Your task to perform on an android device: turn off translation in the chrome app Image 0: 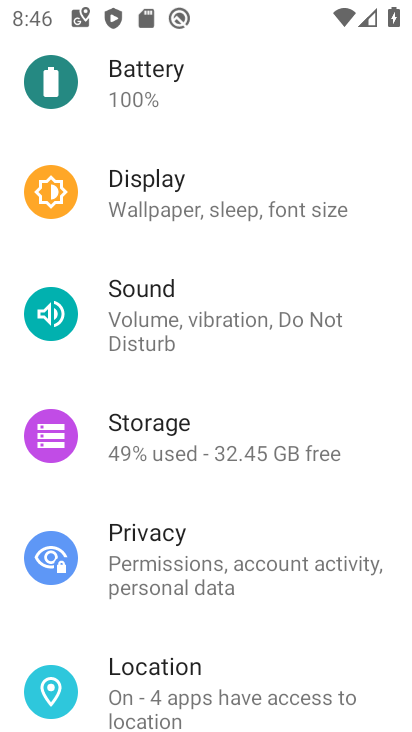
Step 0: press home button
Your task to perform on an android device: turn off translation in the chrome app Image 1: 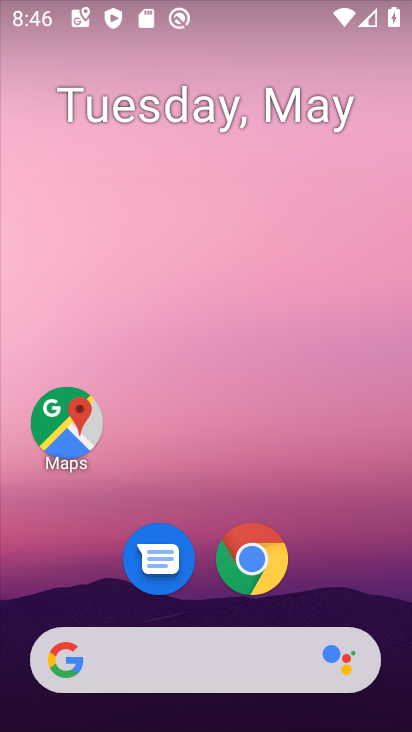
Step 1: click (259, 576)
Your task to perform on an android device: turn off translation in the chrome app Image 2: 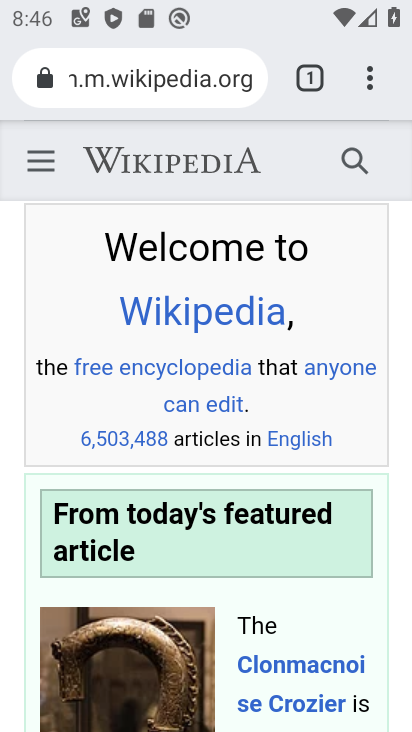
Step 2: drag from (373, 70) to (152, 611)
Your task to perform on an android device: turn off translation in the chrome app Image 3: 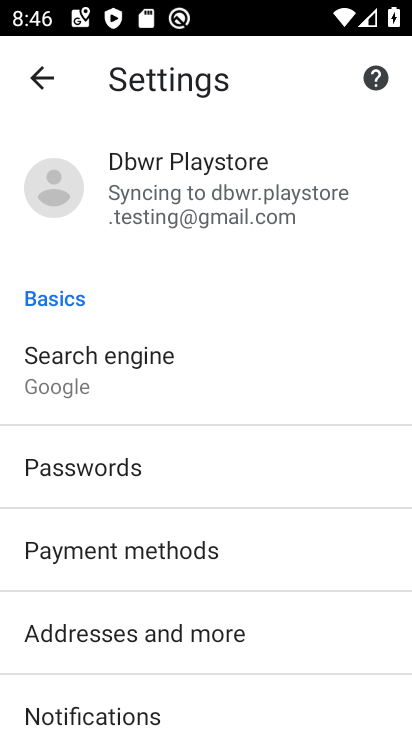
Step 3: drag from (164, 660) to (200, 273)
Your task to perform on an android device: turn off translation in the chrome app Image 4: 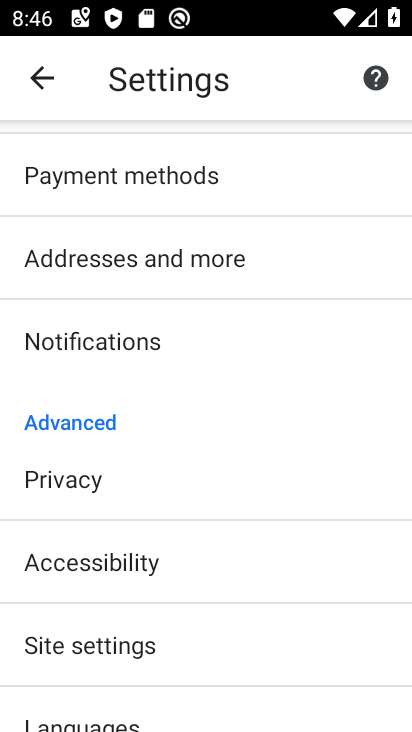
Step 4: click (136, 722)
Your task to perform on an android device: turn off translation in the chrome app Image 5: 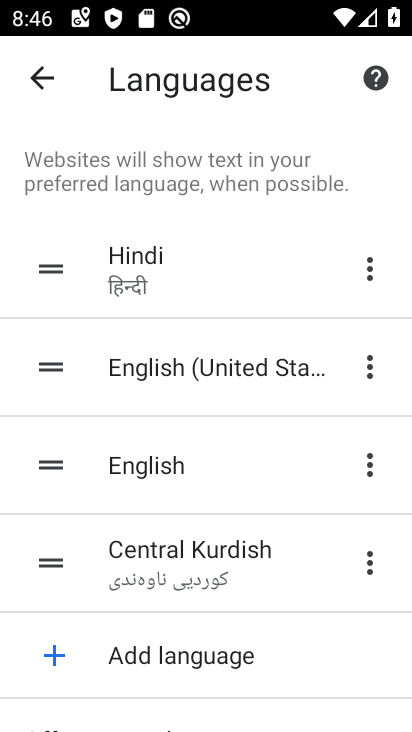
Step 5: drag from (226, 690) to (218, 233)
Your task to perform on an android device: turn off translation in the chrome app Image 6: 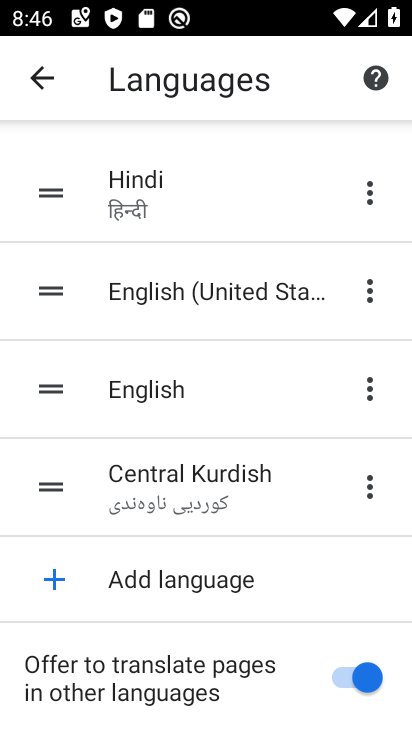
Step 6: click (339, 671)
Your task to perform on an android device: turn off translation in the chrome app Image 7: 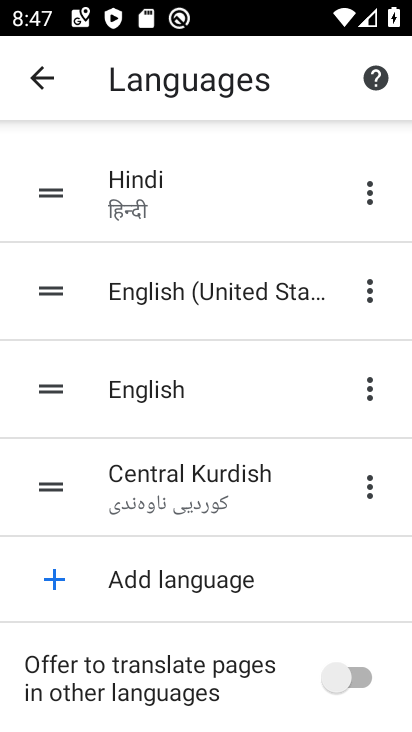
Step 7: task complete